Your task to perform on an android device: Clear the shopping cart on costco.com. Search for "razer blade" on costco.com, select the first entry, and add it to the cart. Image 0: 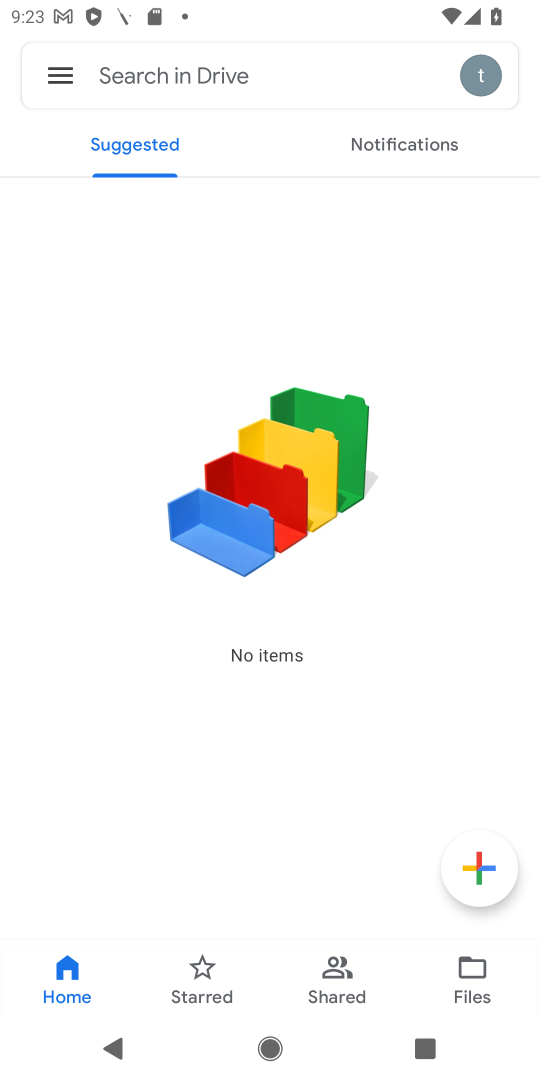
Step 0: press home button
Your task to perform on an android device: Clear the shopping cart on costco.com. Search for "razer blade" on costco.com, select the first entry, and add it to the cart. Image 1: 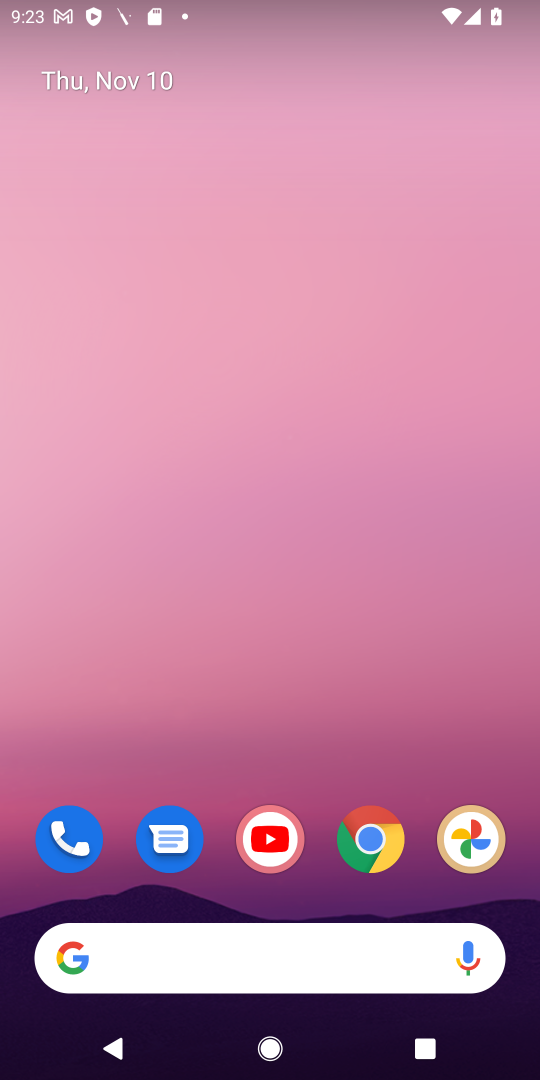
Step 1: click (359, 833)
Your task to perform on an android device: Clear the shopping cart on costco.com. Search for "razer blade" on costco.com, select the first entry, and add it to the cart. Image 2: 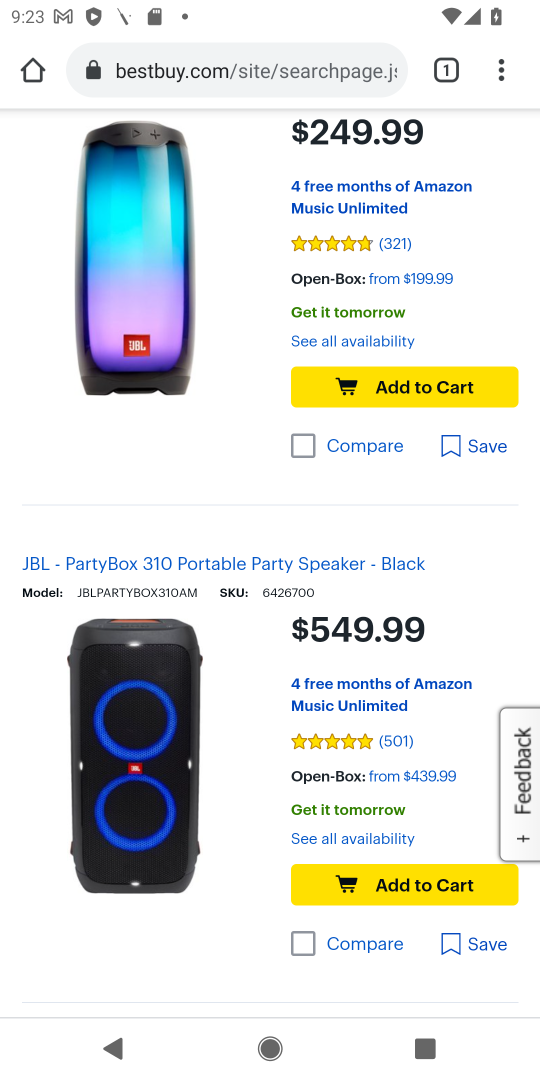
Step 2: click (300, 70)
Your task to perform on an android device: Clear the shopping cart on costco.com. Search for "razer blade" on costco.com, select the first entry, and add it to the cart. Image 3: 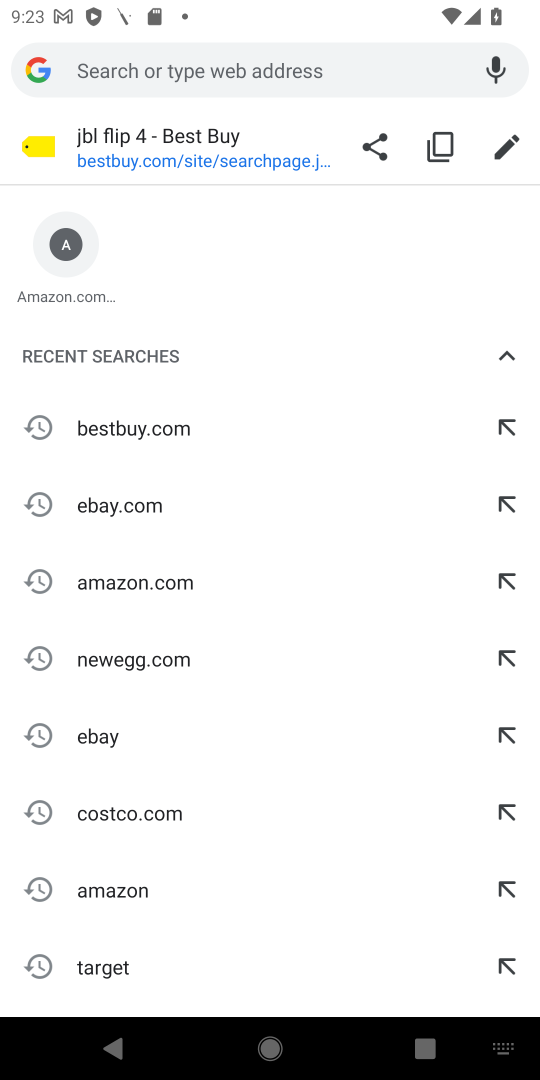
Step 3: click (164, 815)
Your task to perform on an android device: Clear the shopping cart on costco.com. Search for "razer blade" on costco.com, select the first entry, and add it to the cart. Image 4: 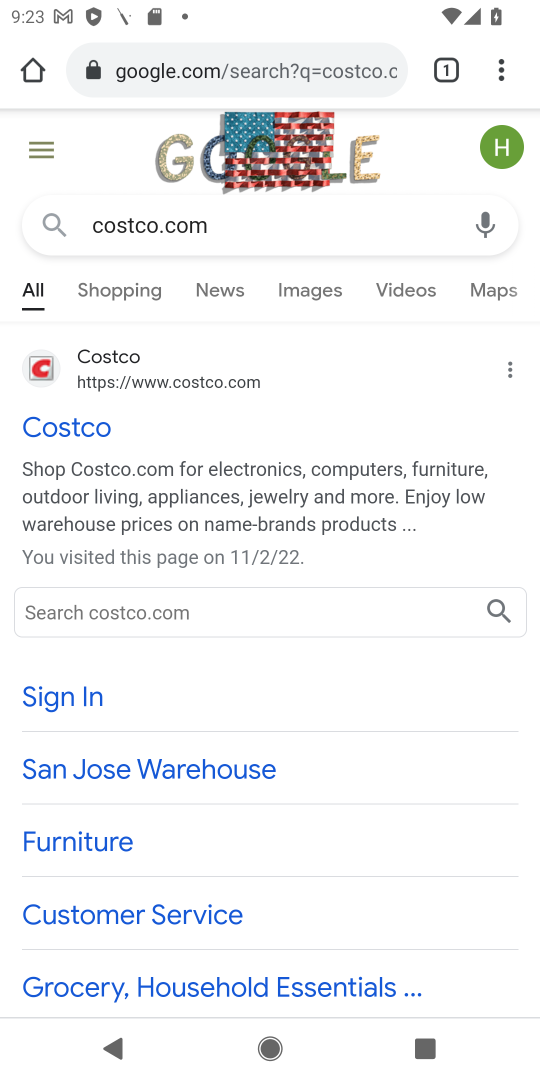
Step 4: click (215, 379)
Your task to perform on an android device: Clear the shopping cart on costco.com. Search for "razer blade" on costco.com, select the first entry, and add it to the cart. Image 5: 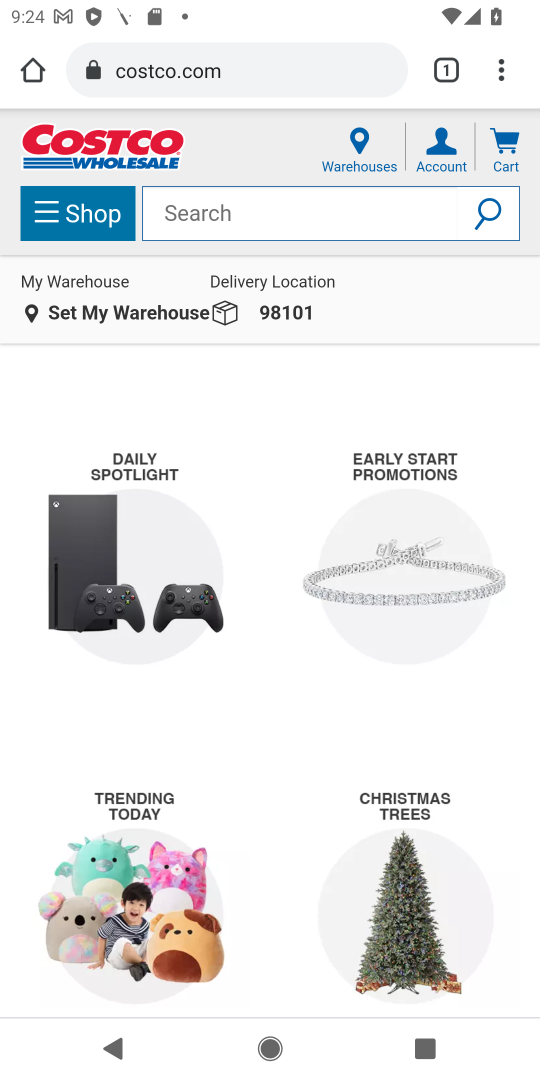
Step 5: click (397, 215)
Your task to perform on an android device: Clear the shopping cart on costco.com. Search for "razer blade" on costco.com, select the first entry, and add it to the cart. Image 6: 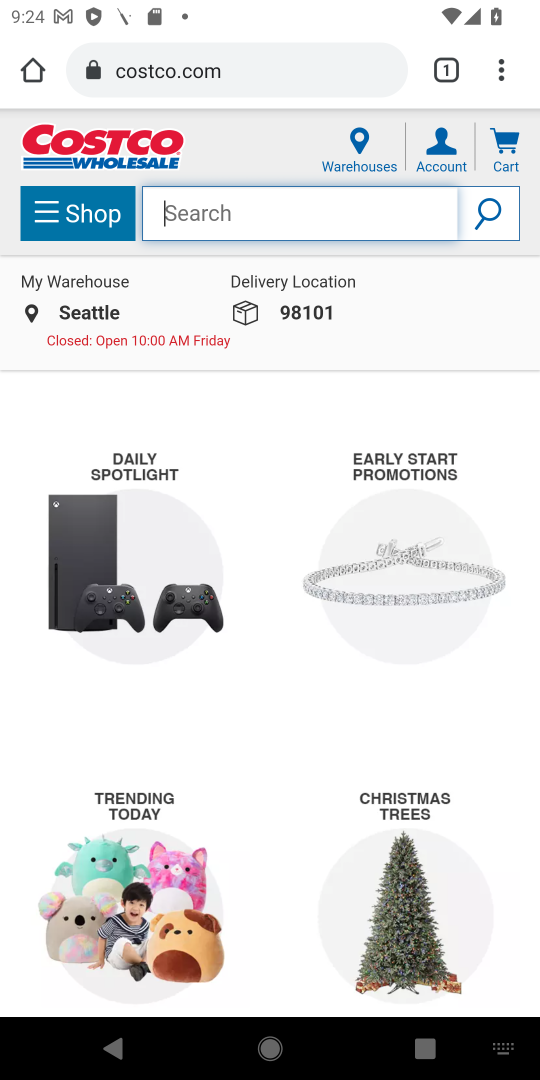
Step 6: type "razer blade"
Your task to perform on an android device: Clear the shopping cart on costco.com. Search for "razer blade" on costco.com, select the first entry, and add it to the cart. Image 7: 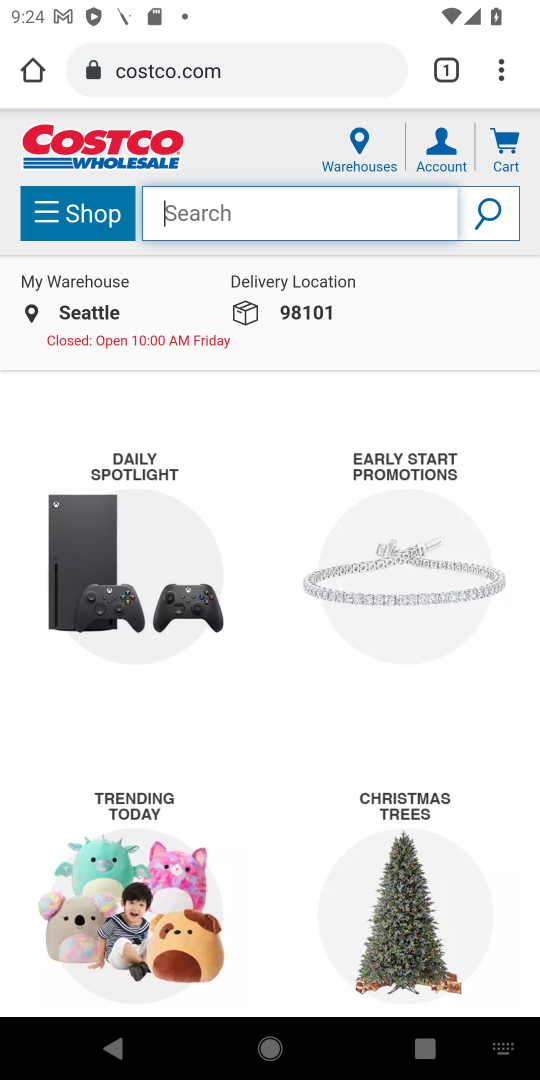
Step 7: press enter
Your task to perform on an android device: Clear the shopping cart on costco.com. Search for "razer blade" on costco.com, select the first entry, and add it to the cart. Image 8: 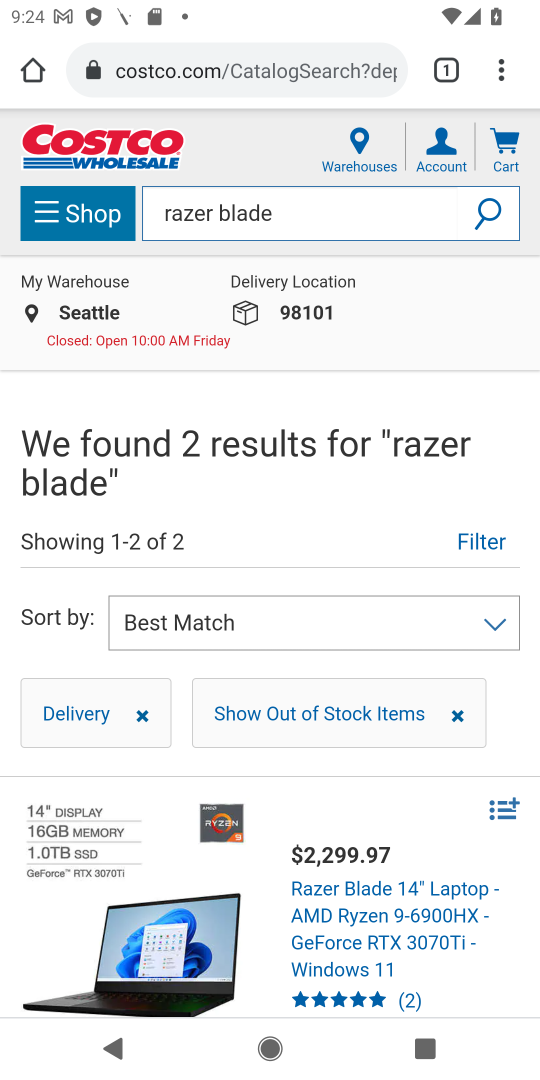
Step 8: drag from (235, 879) to (321, 339)
Your task to perform on an android device: Clear the shopping cart on costco.com. Search for "razer blade" on costco.com, select the first entry, and add it to the cart. Image 9: 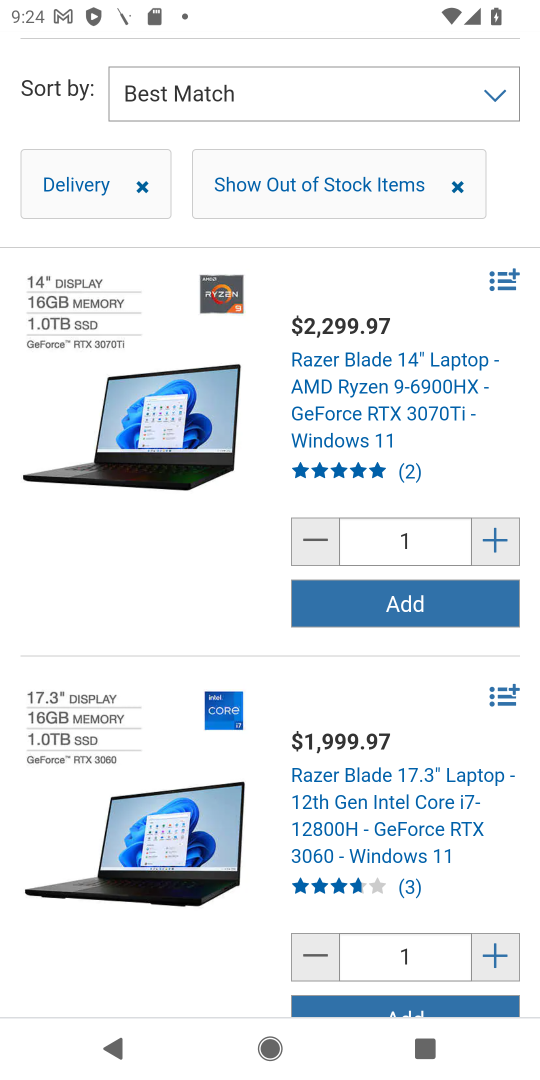
Step 9: click (128, 391)
Your task to perform on an android device: Clear the shopping cart on costco.com. Search for "razer blade" on costco.com, select the first entry, and add it to the cart. Image 10: 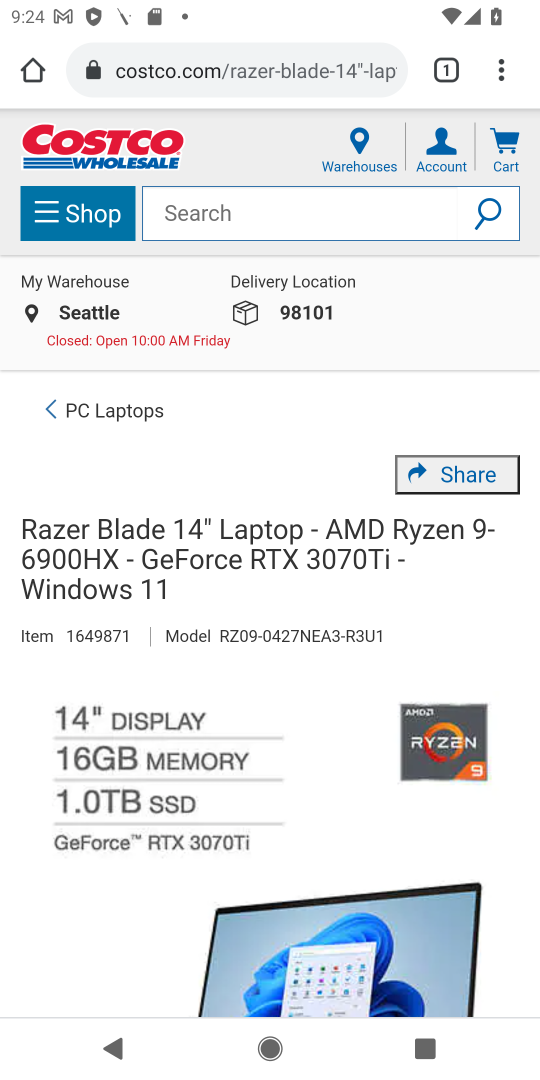
Step 10: drag from (346, 795) to (318, 226)
Your task to perform on an android device: Clear the shopping cart on costco.com. Search for "razer blade" on costco.com, select the first entry, and add it to the cart. Image 11: 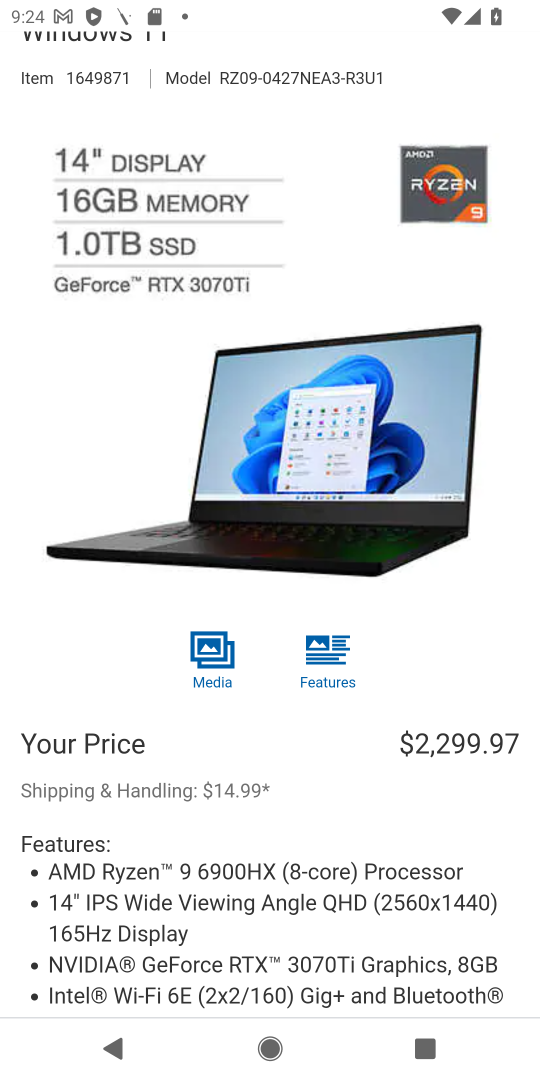
Step 11: drag from (377, 754) to (361, 306)
Your task to perform on an android device: Clear the shopping cart on costco.com. Search for "razer blade" on costco.com, select the first entry, and add it to the cart. Image 12: 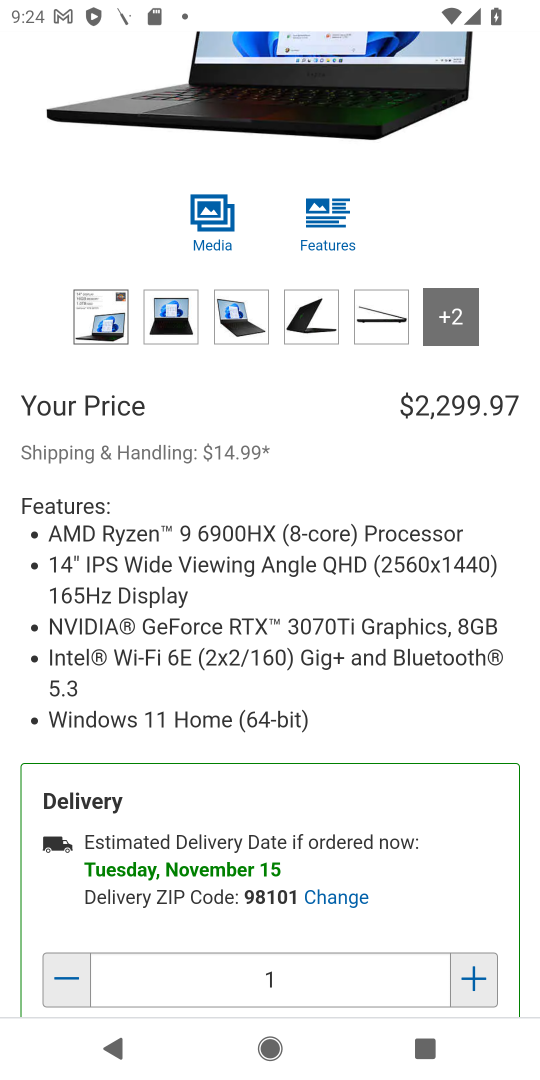
Step 12: drag from (433, 674) to (404, 348)
Your task to perform on an android device: Clear the shopping cart on costco.com. Search for "razer blade" on costco.com, select the first entry, and add it to the cart. Image 13: 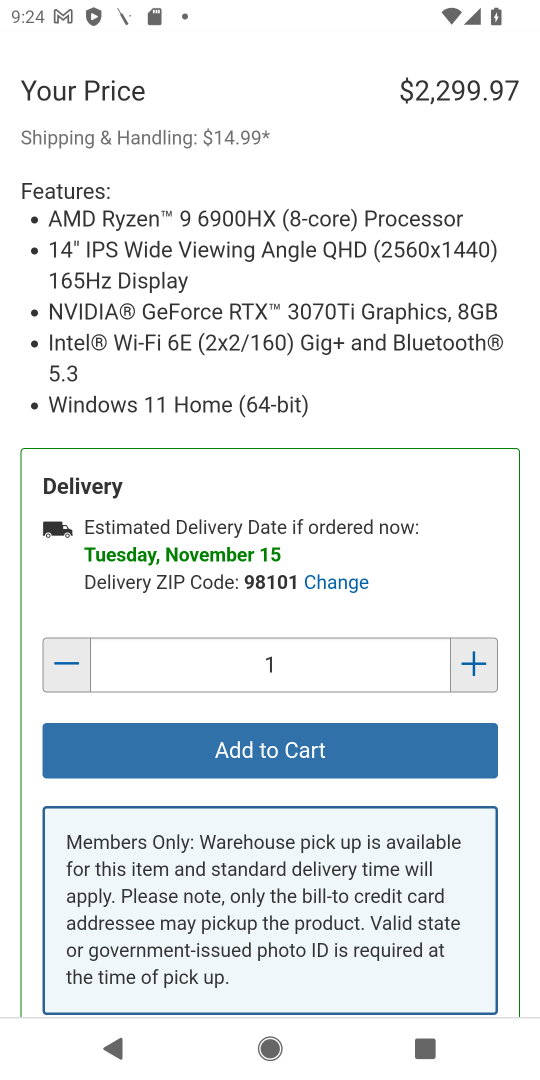
Step 13: click (274, 756)
Your task to perform on an android device: Clear the shopping cart on costco.com. Search for "razer blade" on costco.com, select the first entry, and add it to the cart. Image 14: 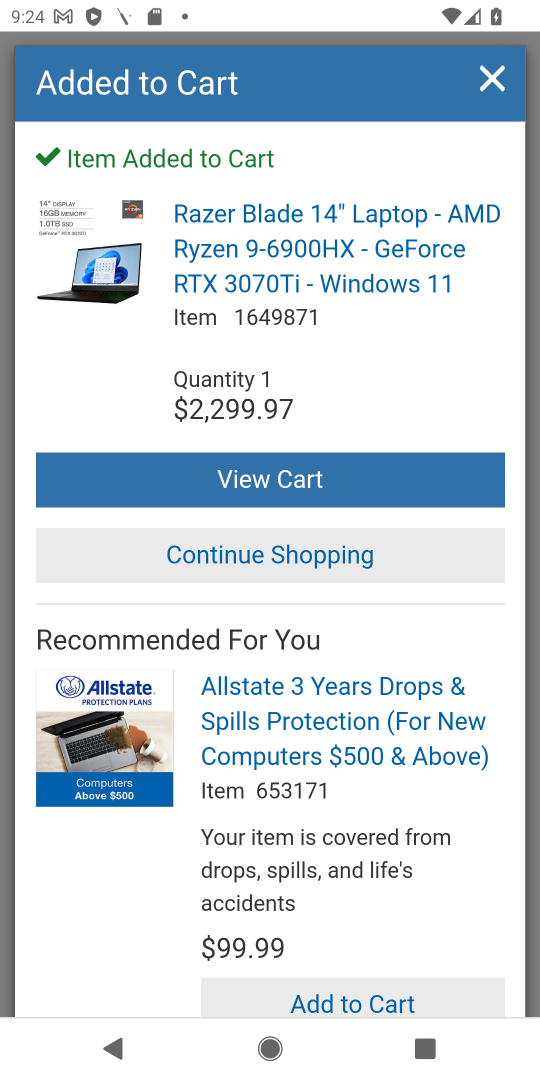
Step 14: click (306, 476)
Your task to perform on an android device: Clear the shopping cart on costco.com. Search for "razer blade" on costco.com, select the first entry, and add it to the cart. Image 15: 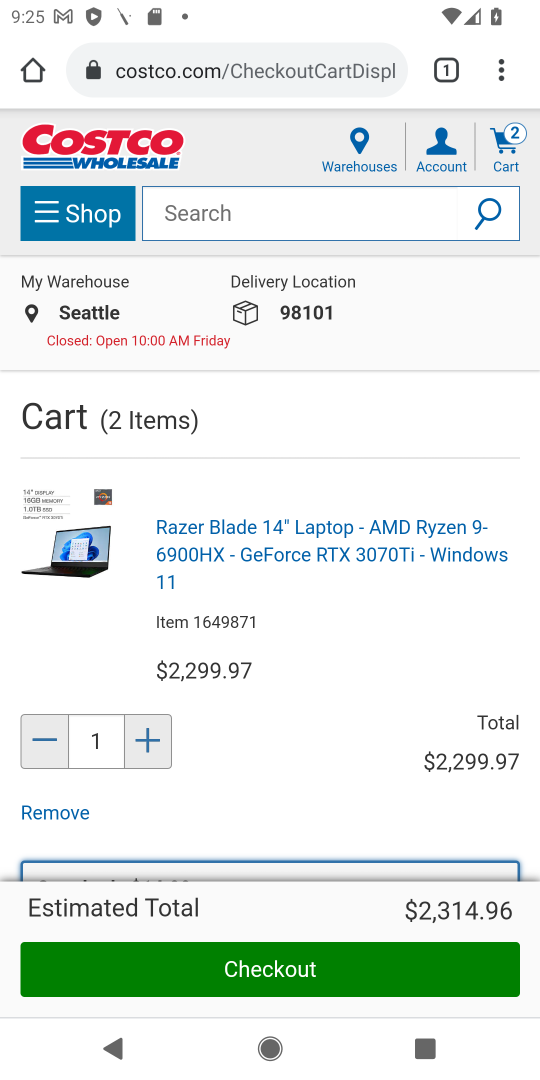
Step 15: task complete